Your task to perform on an android device: Empty the shopping cart on walmart. Add usb-a to the cart on walmart Image 0: 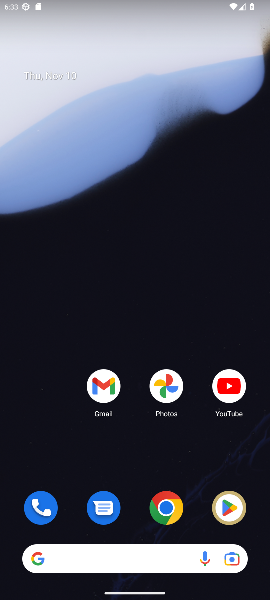
Step 0: click (173, 504)
Your task to perform on an android device: Empty the shopping cart on walmart. Add usb-a to the cart on walmart Image 1: 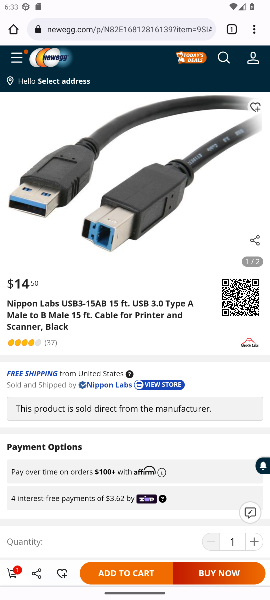
Step 1: click (124, 23)
Your task to perform on an android device: Empty the shopping cart on walmart. Add usb-a to the cart on walmart Image 2: 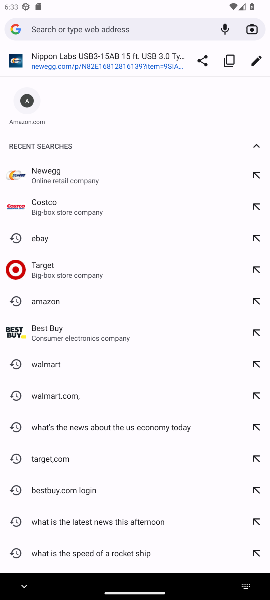
Step 2: click (40, 398)
Your task to perform on an android device: Empty the shopping cart on walmart. Add usb-a to the cart on walmart Image 3: 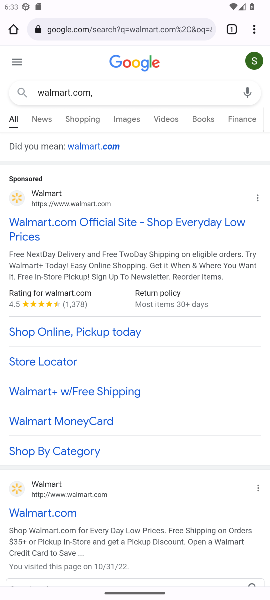
Step 3: click (68, 513)
Your task to perform on an android device: Empty the shopping cart on walmart. Add usb-a to the cart on walmart Image 4: 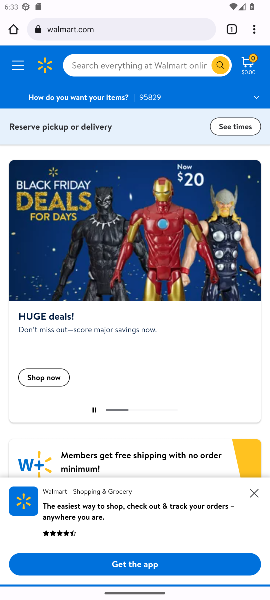
Step 4: click (182, 61)
Your task to perform on an android device: Empty the shopping cart on walmart. Add usb-a to the cart on walmart Image 5: 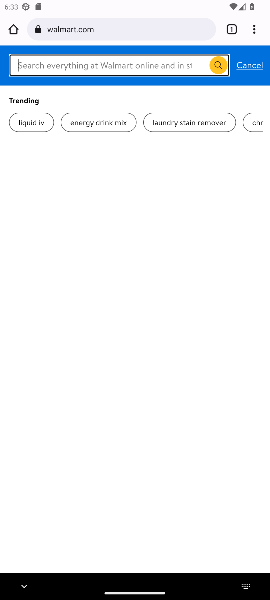
Step 5: type "usb-a"
Your task to perform on an android device: Empty the shopping cart on walmart. Add usb-a to the cart on walmart Image 6: 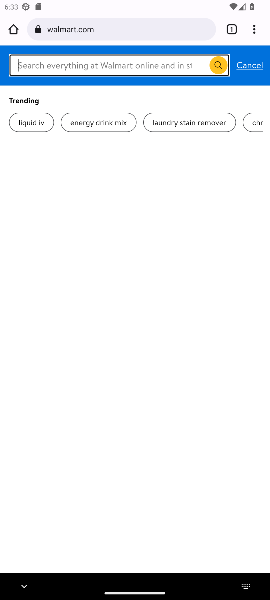
Step 6: press enter
Your task to perform on an android device: Empty the shopping cart on walmart. Add usb-a to the cart on walmart Image 7: 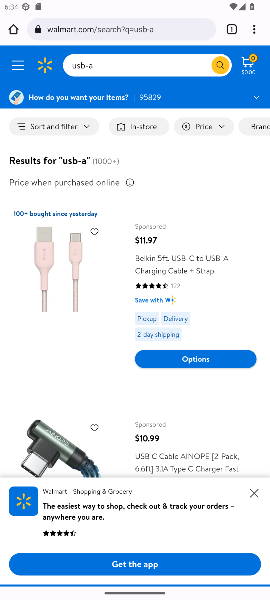
Step 7: task complete